Your task to perform on an android device: turn on translation in the chrome app Image 0: 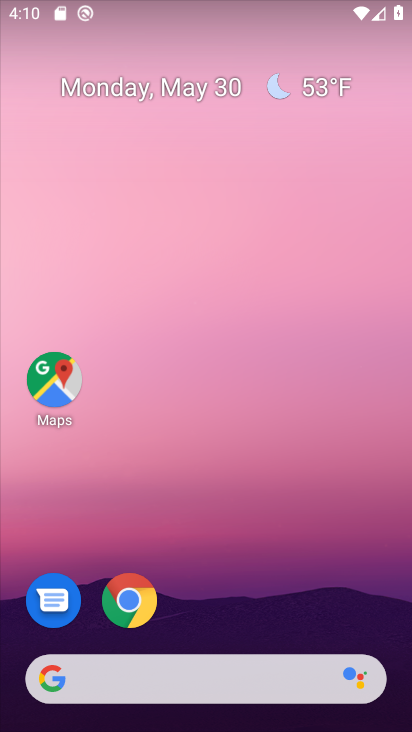
Step 0: drag from (330, 592) to (308, 8)
Your task to perform on an android device: turn on translation in the chrome app Image 1: 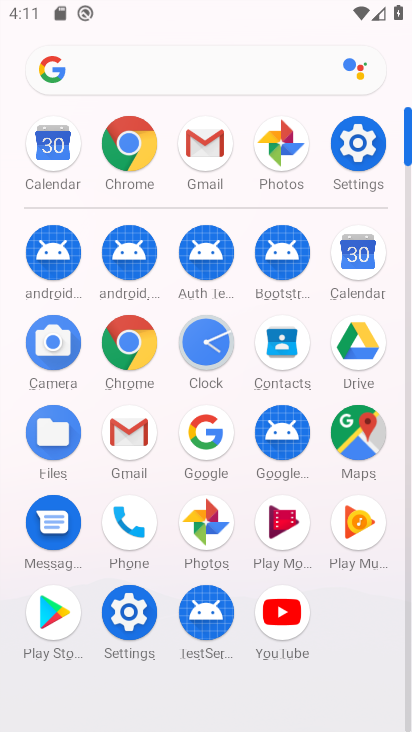
Step 1: click (141, 147)
Your task to perform on an android device: turn on translation in the chrome app Image 2: 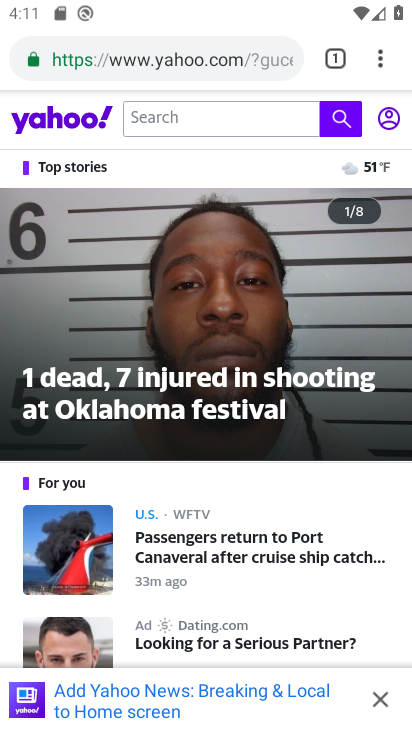
Step 2: drag from (386, 63) to (227, 633)
Your task to perform on an android device: turn on translation in the chrome app Image 3: 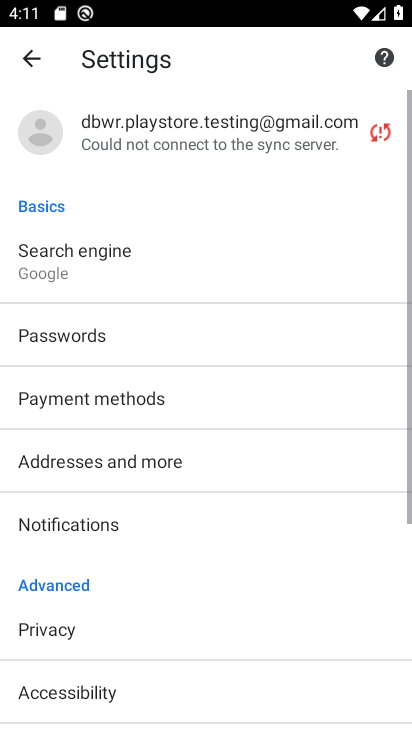
Step 3: drag from (222, 600) to (199, 56)
Your task to perform on an android device: turn on translation in the chrome app Image 4: 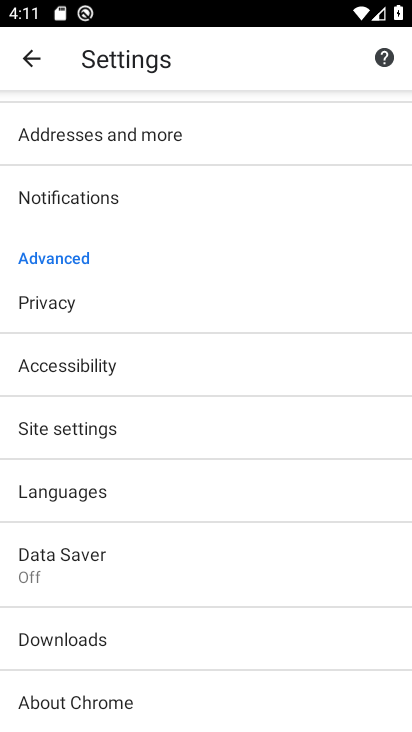
Step 4: drag from (184, 567) to (236, 142)
Your task to perform on an android device: turn on translation in the chrome app Image 5: 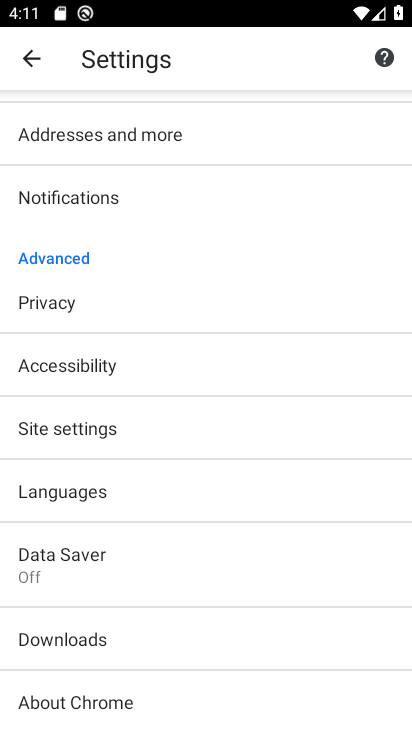
Step 5: click (147, 499)
Your task to perform on an android device: turn on translation in the chrome app Image 6: 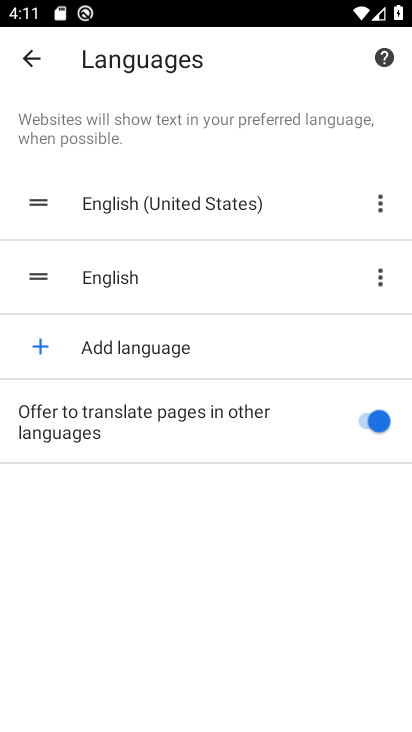
Step 6: task complete